Your task to perform on an android device: Open settings Image 0: 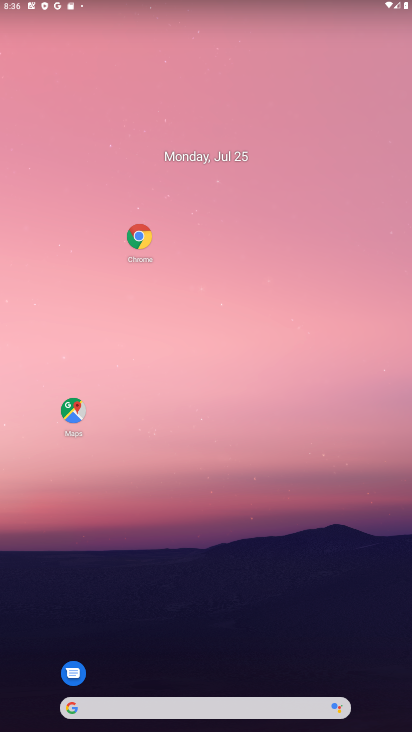
Step 0: drag from (310, 661) to (314, 100)
Your task to perform on an android device: Open settings Image 1: 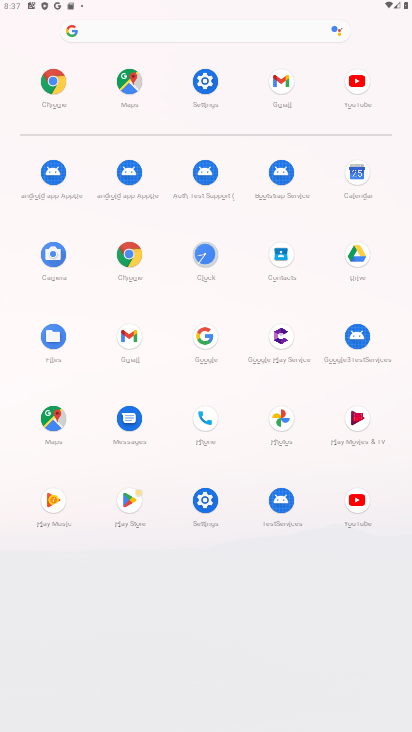
Step 1: click (209, 526)
Your task to perform on an android device: Open settings Image 2: 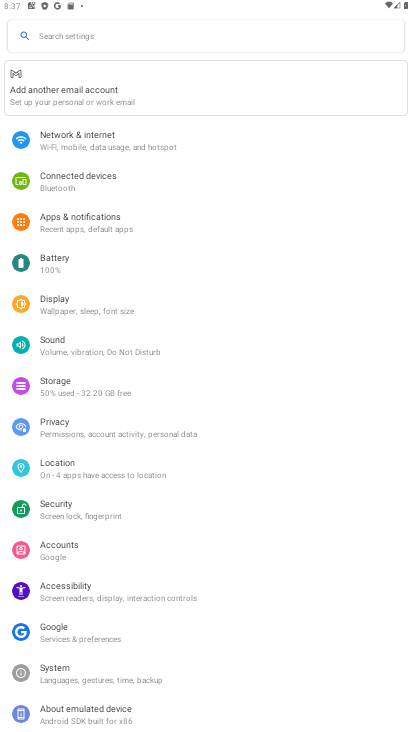
Step 2: task complete